Your task to perform on an android device: Search for sushi restaurants on Maps Image 0: 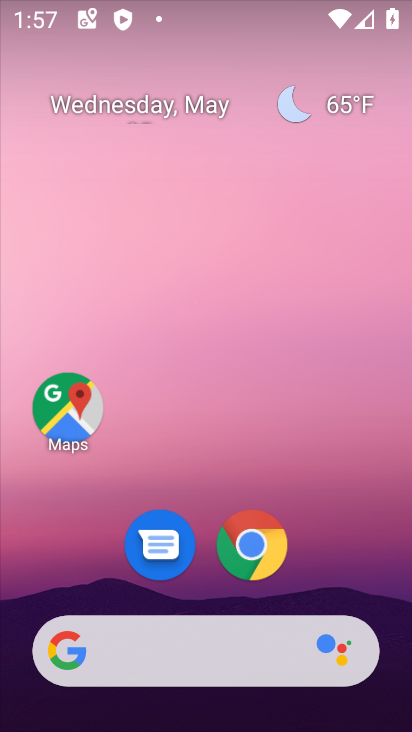
Step 0: click (90, 420)
Your task to perform on an android device: Search for sushi restaurants on Maps Image 1: 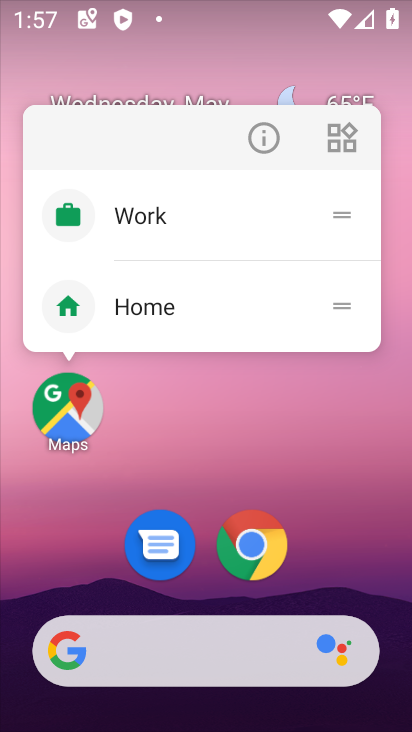
Step 1: click (69, 413)
Your task to perform on an android device: Search for sushi restaurants on Maps Image 2: 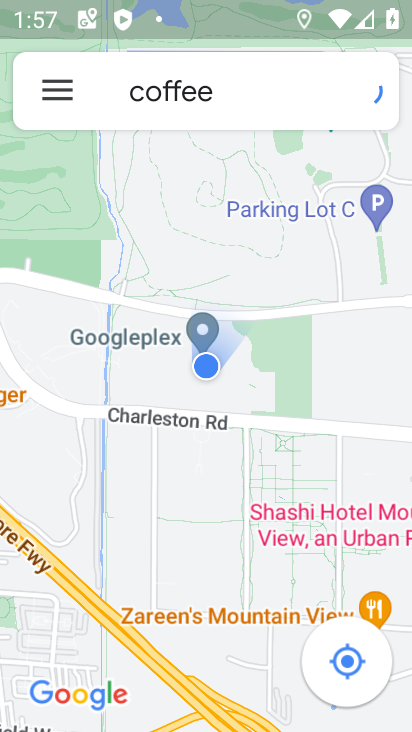
Step 2: click (257, 88)
Your task to perform on an android device: Search for sushi restaurants on Maps Image 3: 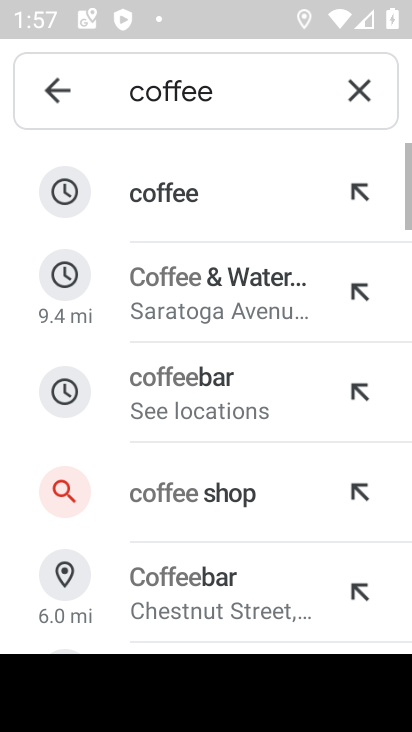
Step 3: click (363, 96)
Your task to perform on an android device: Search for sushi restaurants on Maps Image 4: 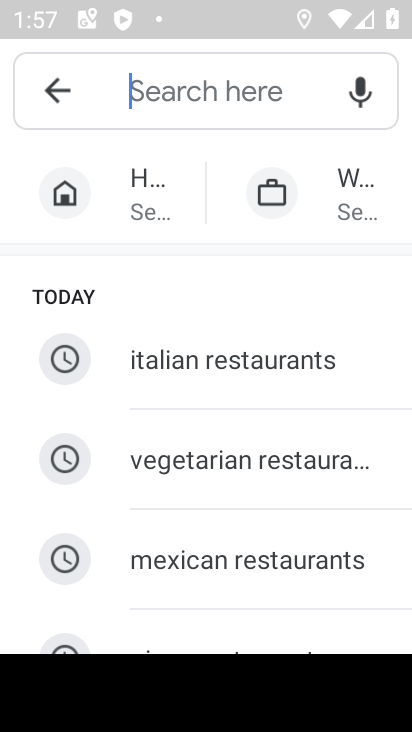
Step 4: drag from (245, 588) to (254, 171)
Your task to perform on an android device: Search for sushi restaurants on Maps Image 5: 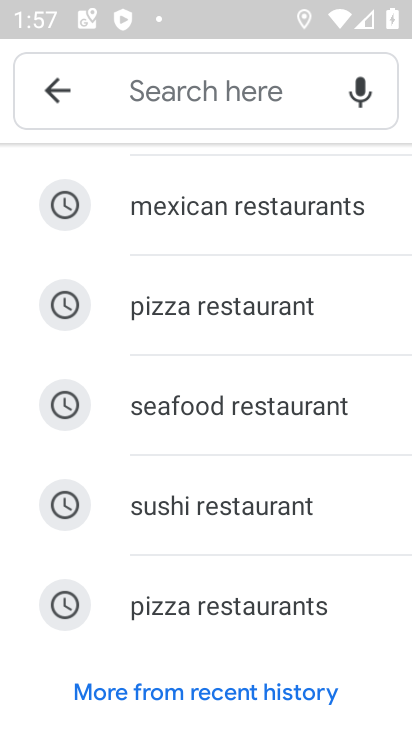
Step 5: click (265, 518)
Your task to perform on an android device: Search for sushi restaurants on Maps Image 6: 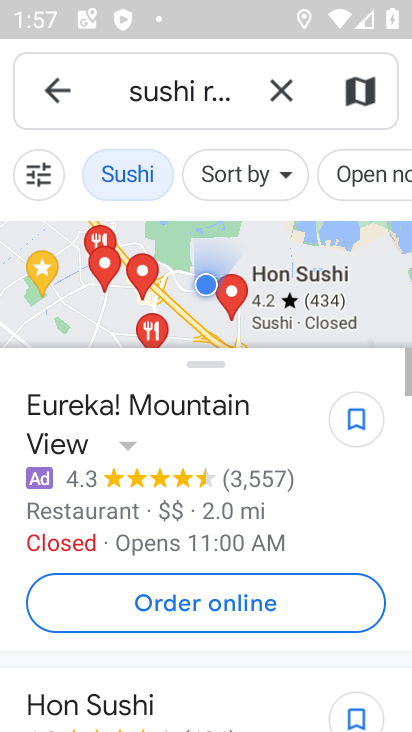
Step 6: task complete